Your task to perform on an android device: What is the news today? Image 0: 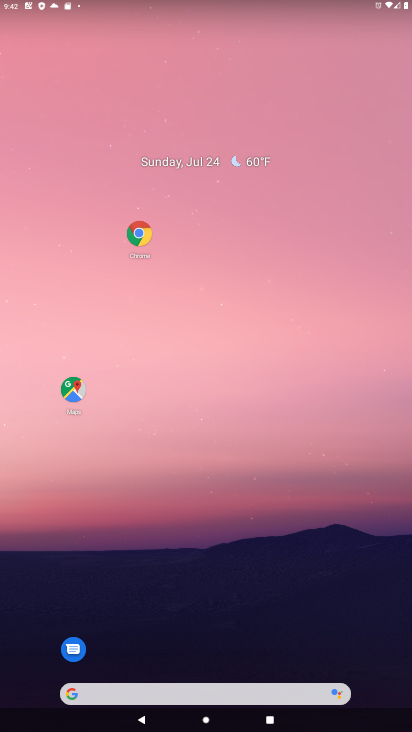
Step 0: click (178, 660)
Your task to perform on an android device: What is the news today? Image 1: 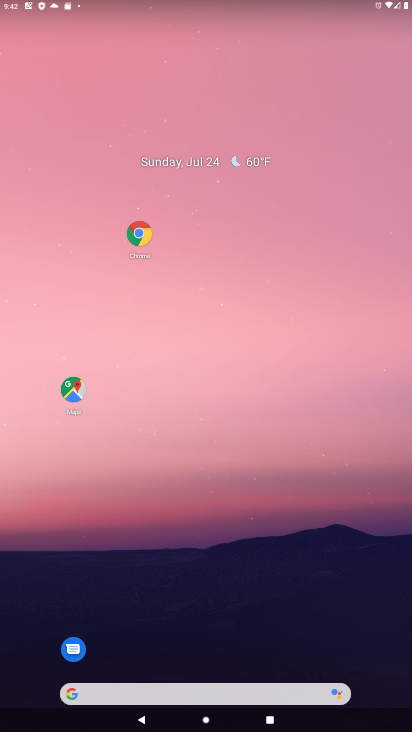
Step 1: drag from (177, 654) to (264, 13)
Your task to perform on an android device: What is the news today? Image 2: 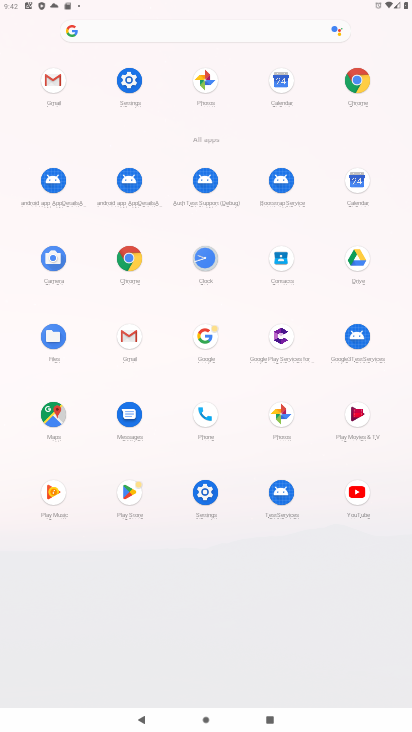
Step 2: click (201, 350)
Your task to perform on an android device: What is the news today? Image 3: 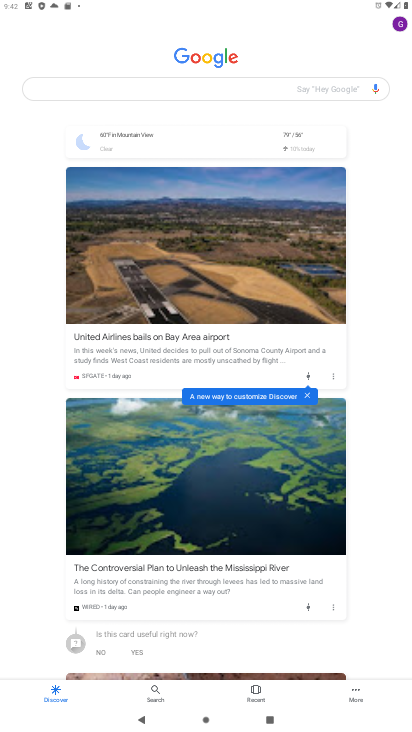
Step 3: click (190, 87)
Your task to perform on an android device: What is the news today? Image 4: 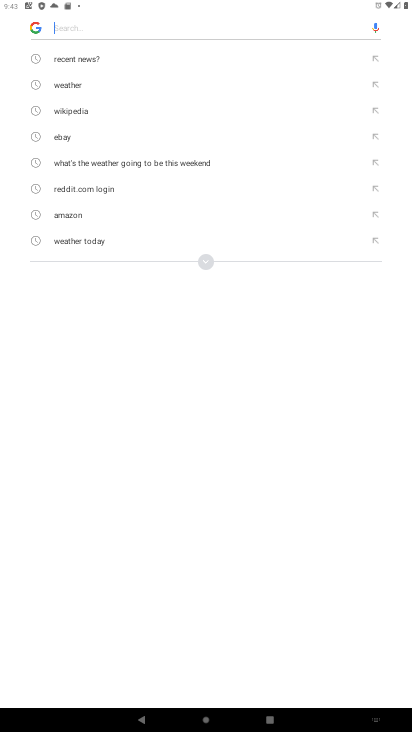
Step 4: type "news today"
Your task to perform on an android device: What is the news today? Image 5: 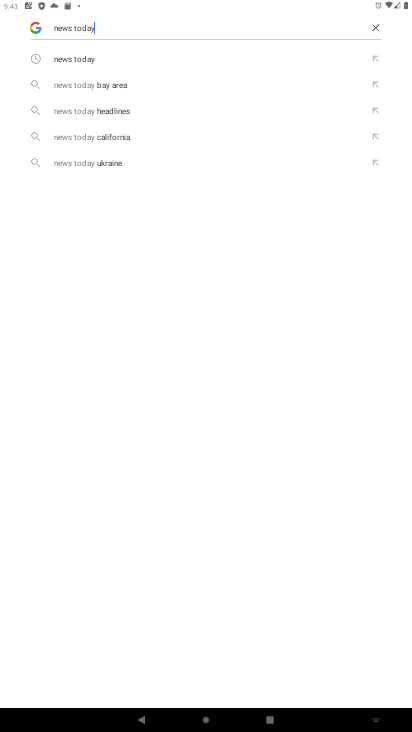
Step 5: click (67, 59)
Your task to perform on an android device: What is the news today? Image 6: 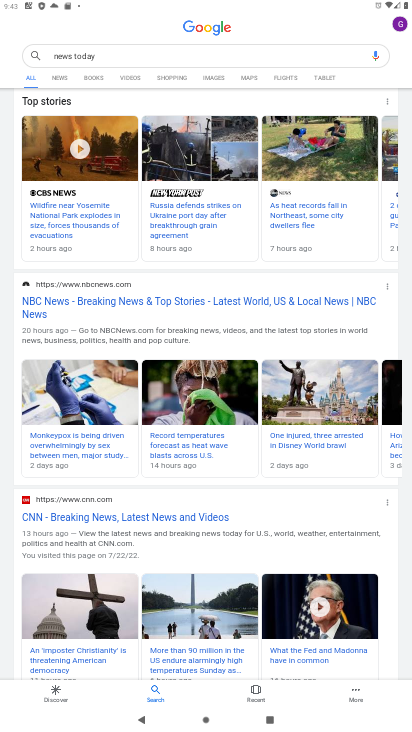
Step 6: task complete